Your task to perform on an android device: Open accessibility settings Image 0: 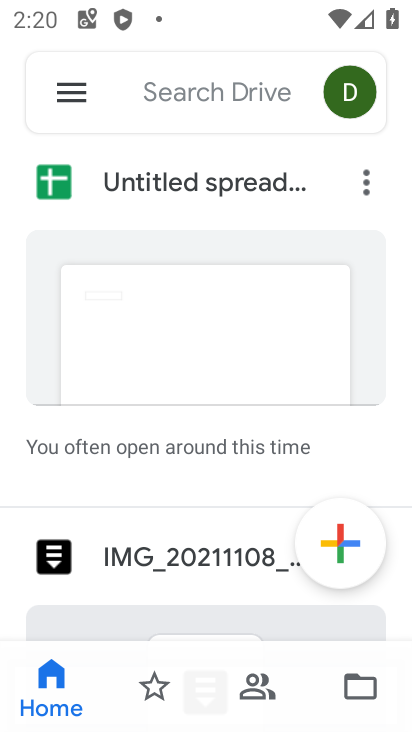
Step 0: press home button
Your task to perform on an android device: Open accessibility settings Image 1: 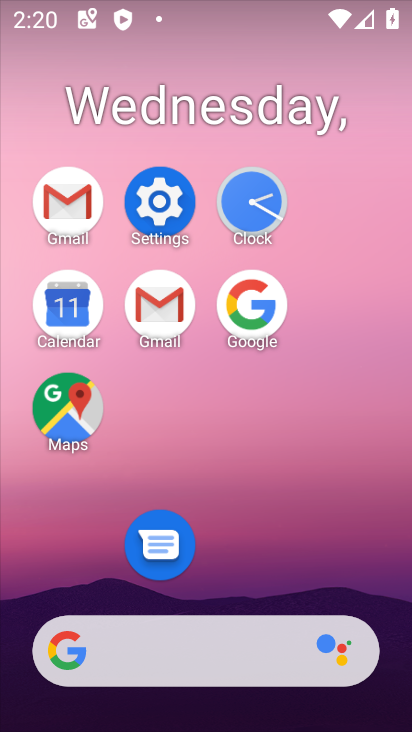
Step 1: click (147, 202)
Your task to perform on an android device: Open accessibility settings Image 2: 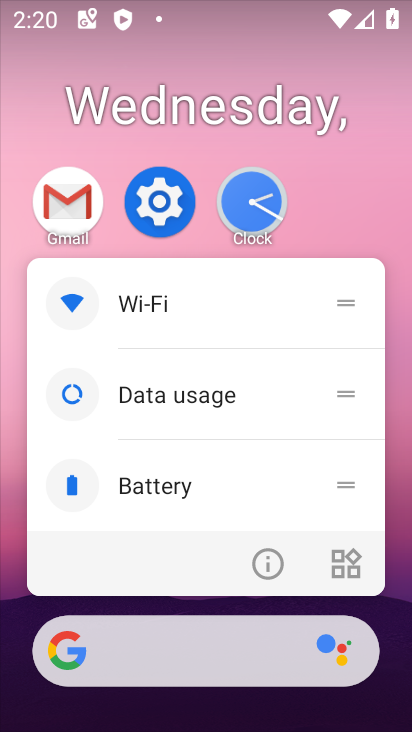
Step 2: click (147, 202)
Your task to perform on an android device: Open accessibility settings Image 3: 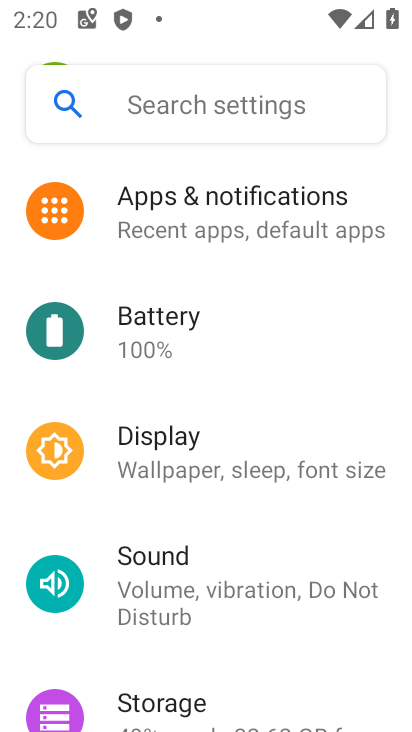
Step 3: drag from (314, 673) to (278, 197)
Your task to perform on an android device: Open accessibility settings Image 4: 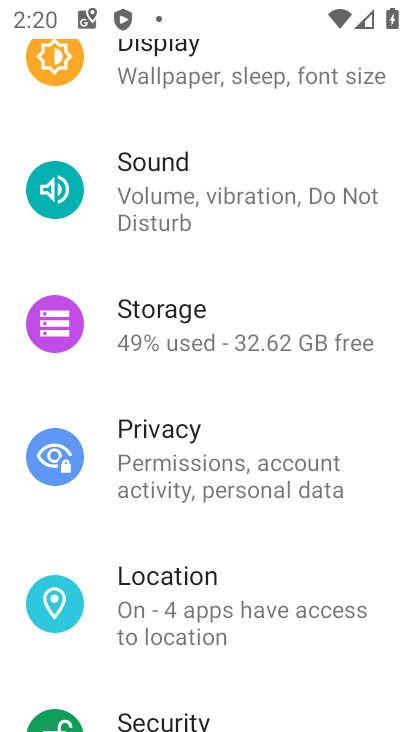
Step 4: drag from (267, 564) to (255, 188)
Your task to perform on an android device: Open accessibility settings Image 5: 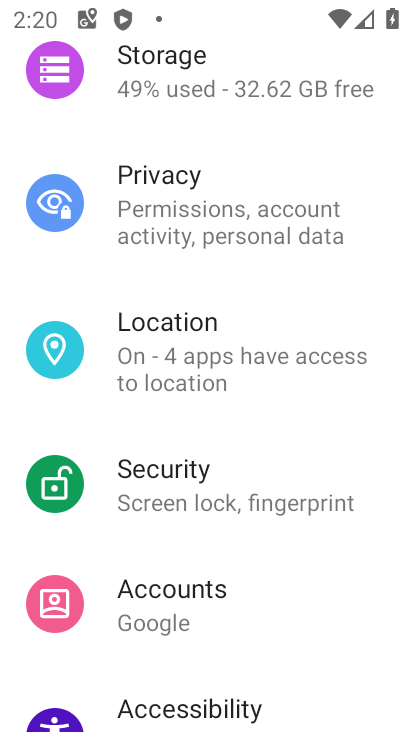
Step 5: click (251, 701)
Your task to perform on an android device: Open accessibility settings Image 6: 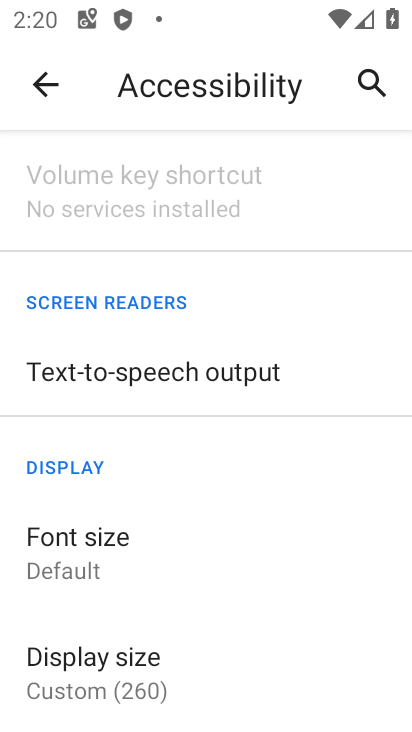
Step 6: task complete